Your task to perform on an android device: open device folders in google photos Image 0: 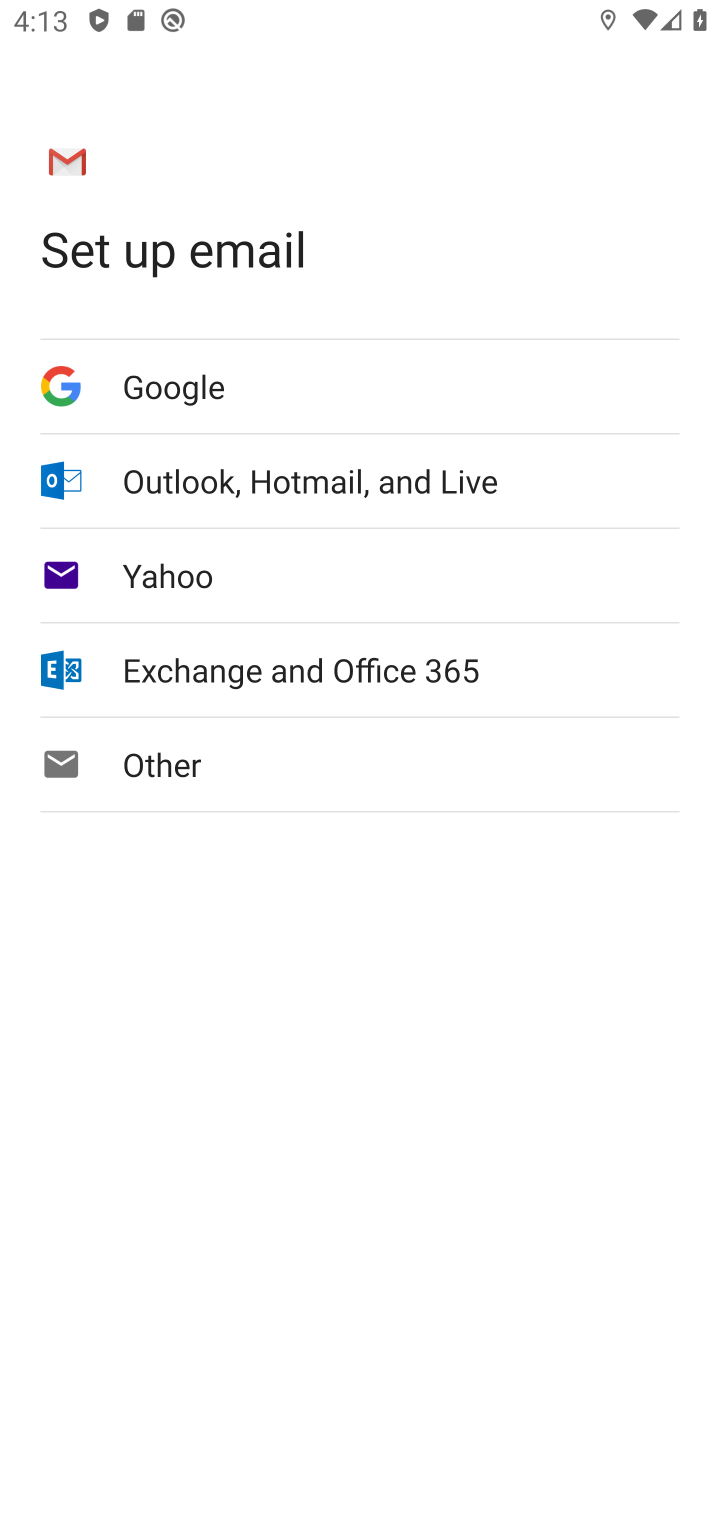
Step 0: press back button
Your task to perform on an android device: open device folders in google photos Image 1: 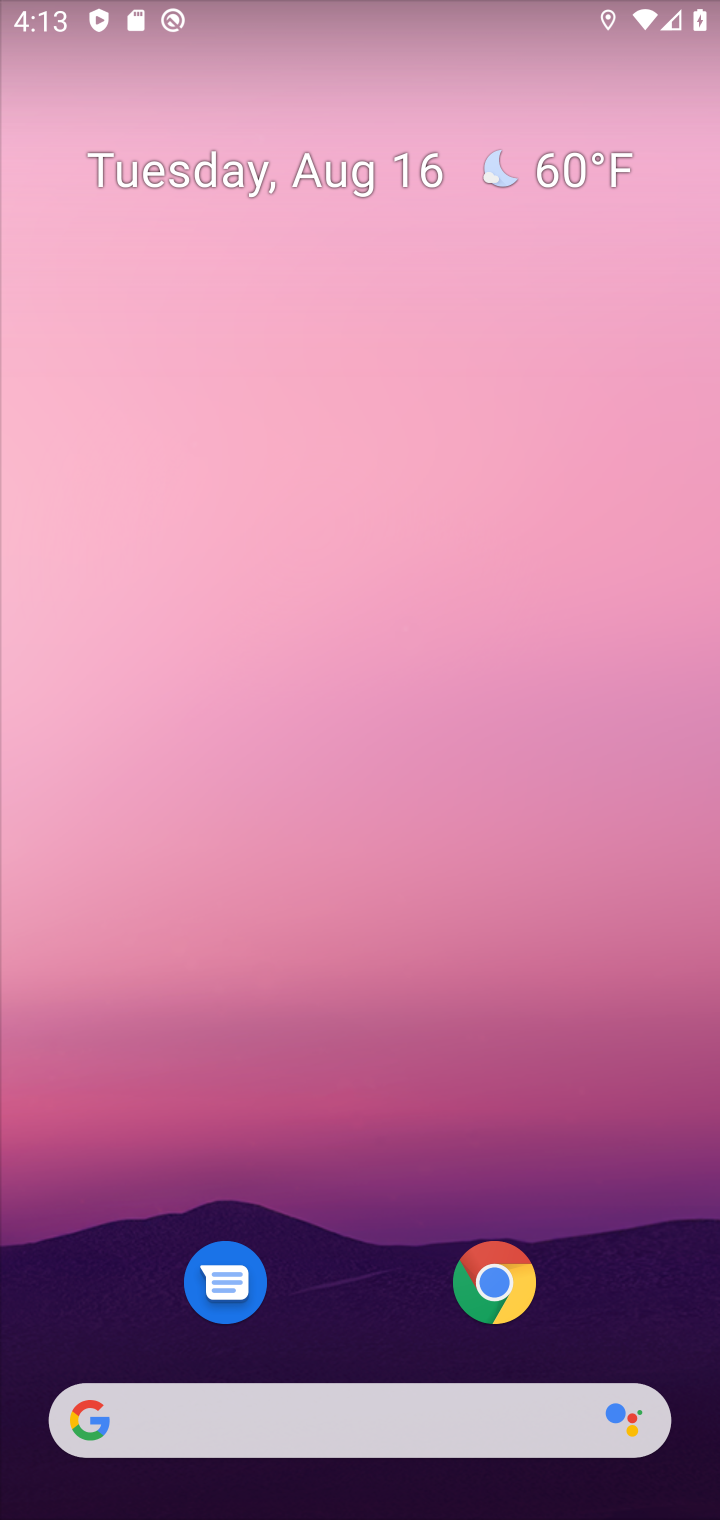
Step 1: drag from (376, 1104) to (507, 2)
Your task to perform on an android device: open device folders in google photos Image 2: 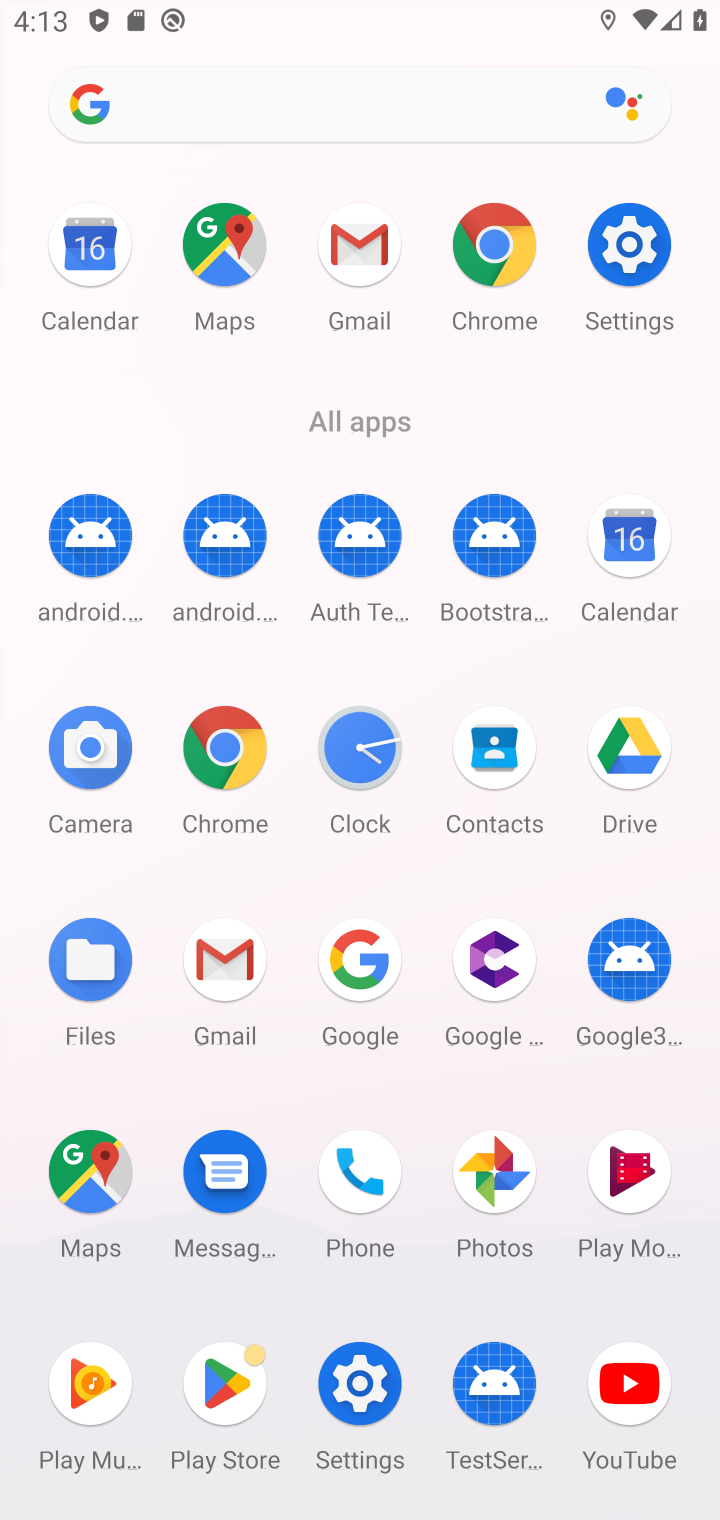
Step 2: click (472, 1190)
Your task to perform on an android device: open device folders in google photos Image 3: 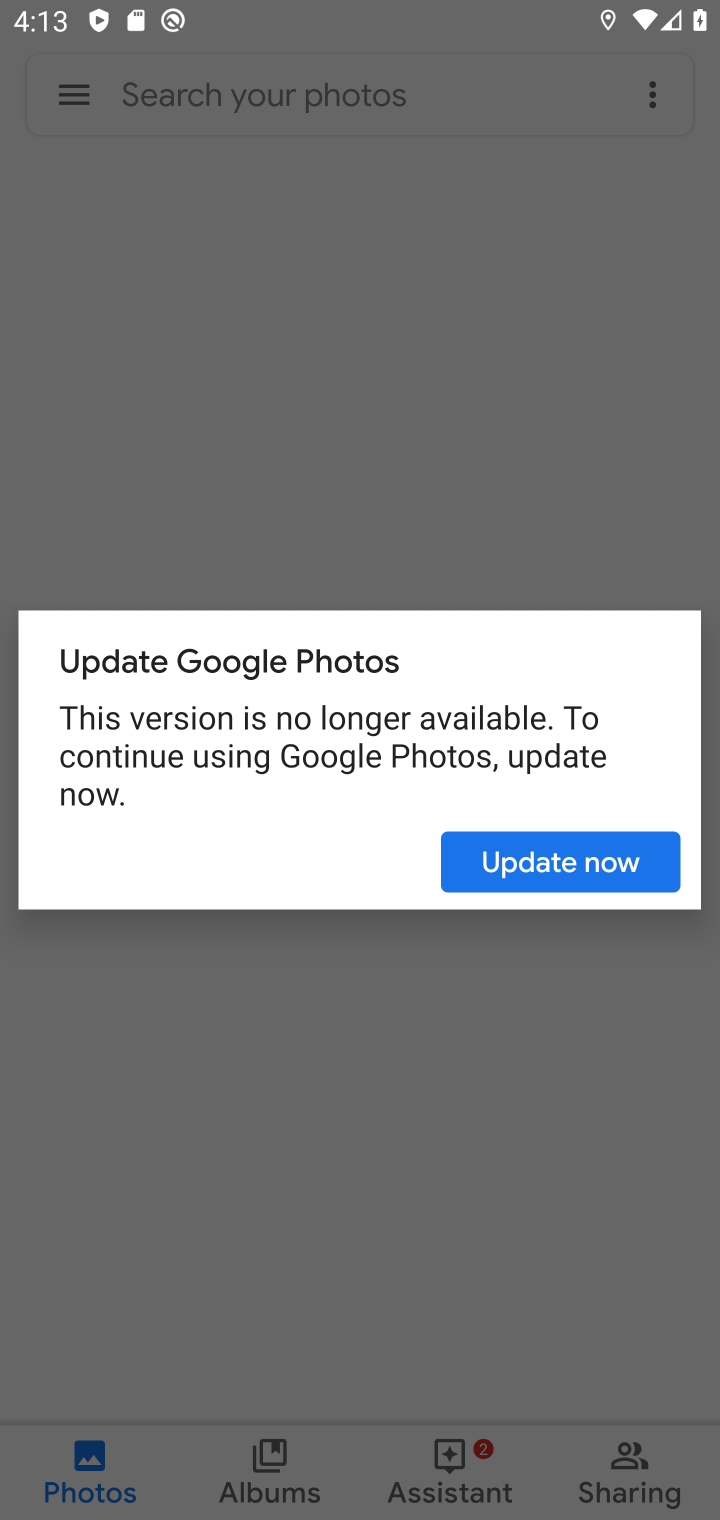
Step 3: click (535, 870)
Your task to perform on an android device: open device folders in google photos Image 4: 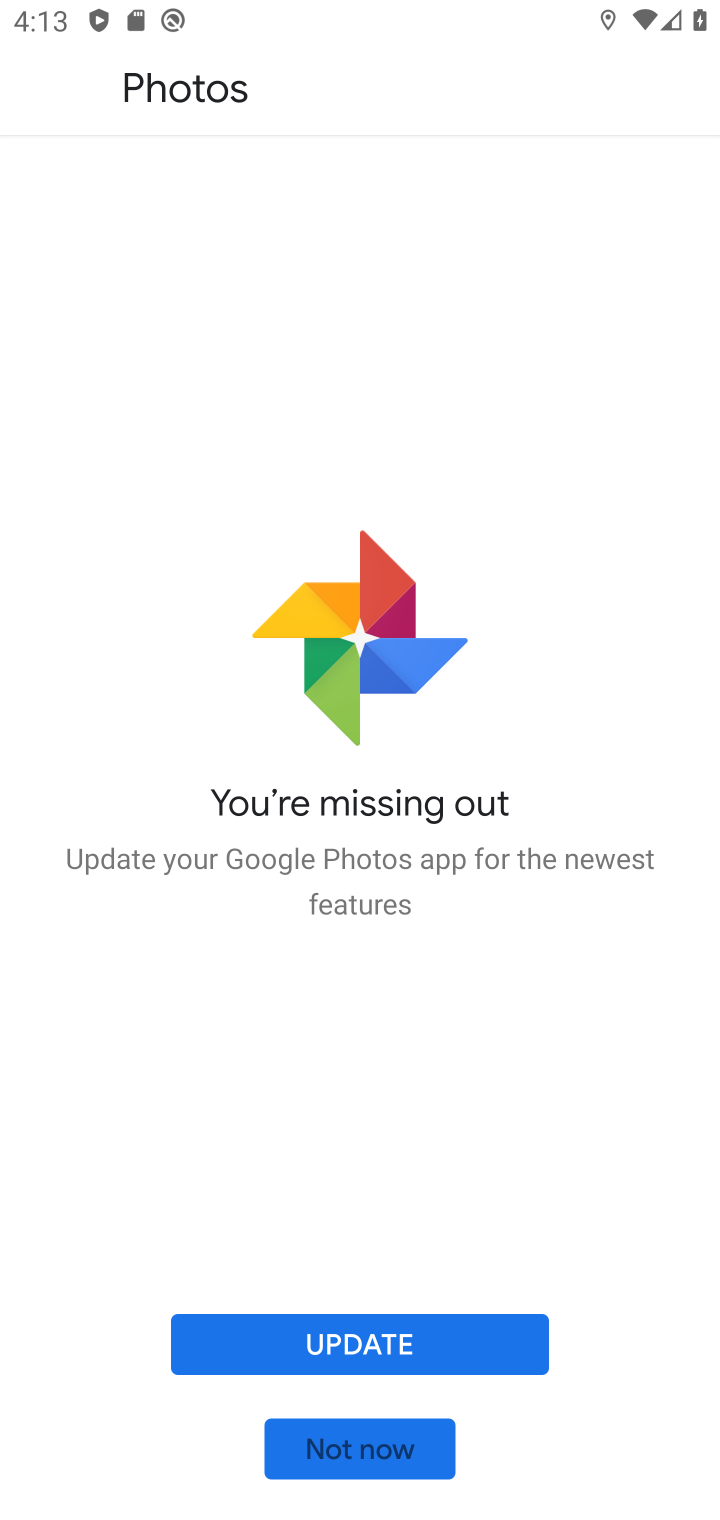
Step 4: click (308, 1459)
Your task to perform on an android device: open device folders in google photos Image 5: 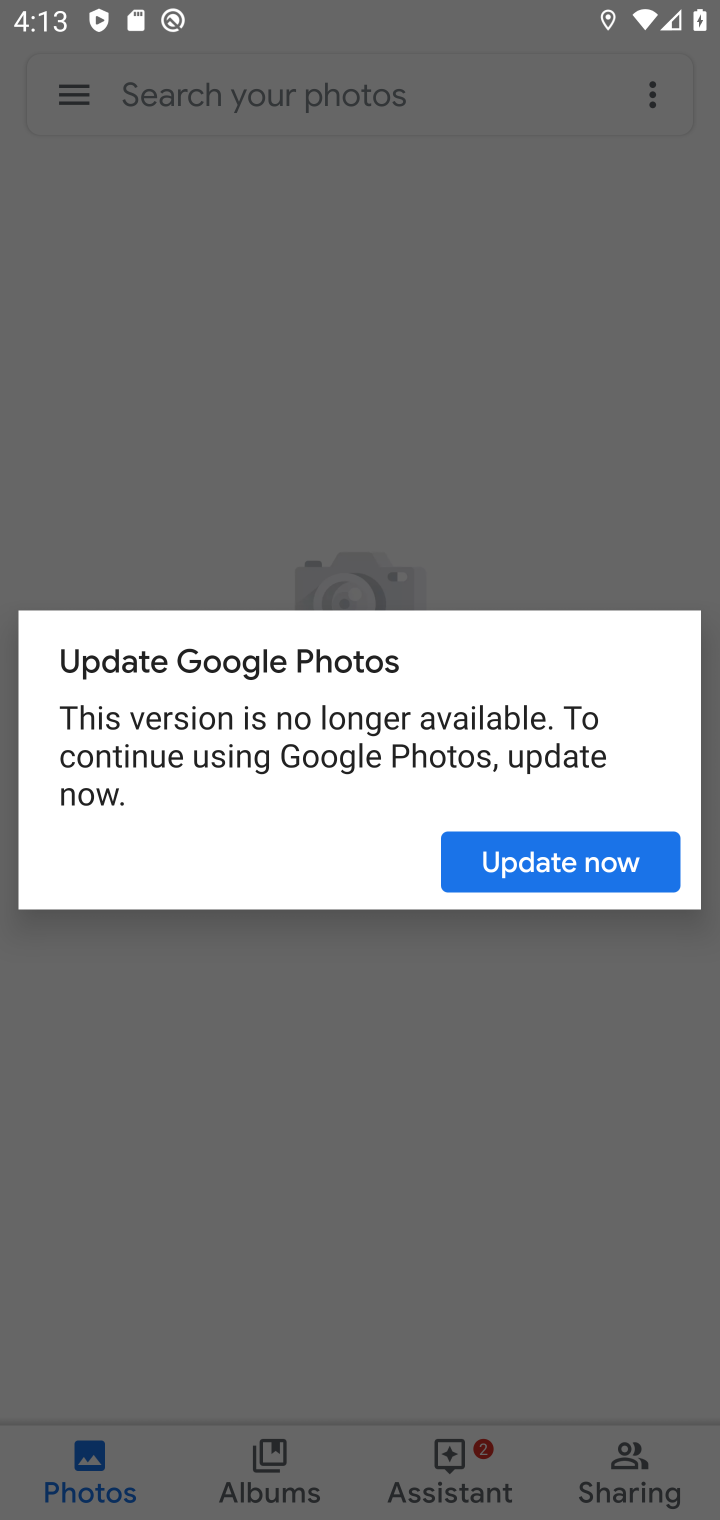
Step 5: click (496, 852)
Your task to perform on an android device: open device folders in google photos Image 6: 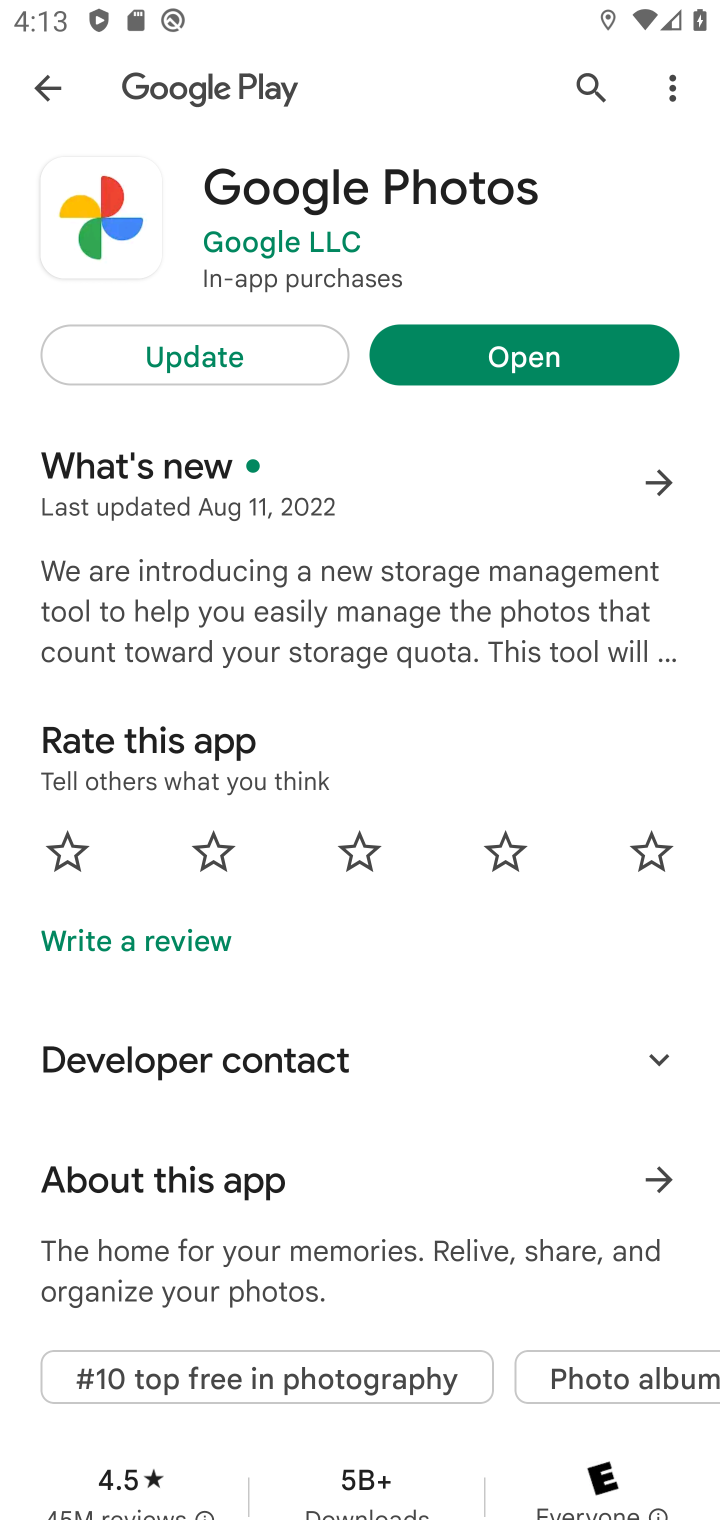
Step 6: click (516, 345)
Your task to perform on an android device: open device folders in google photos Image 7: 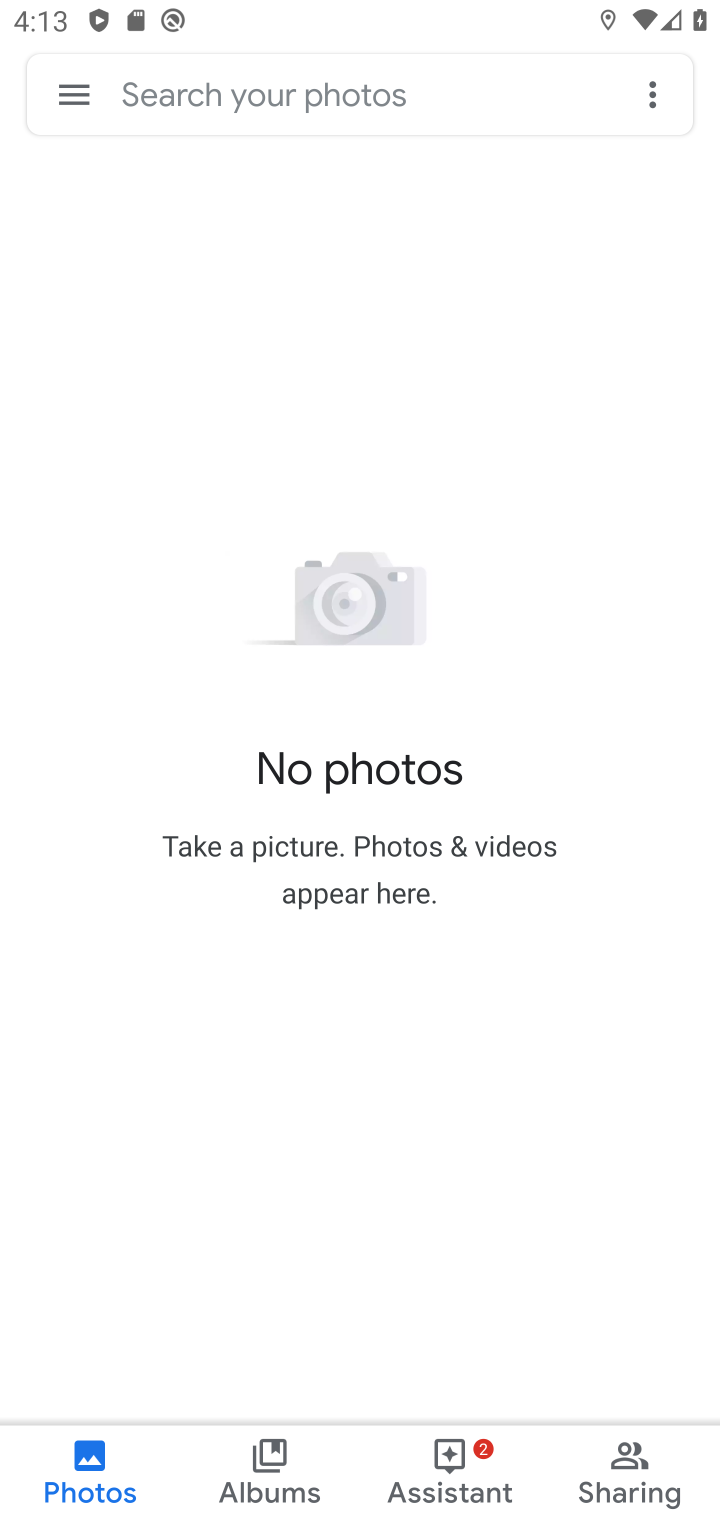
Step 7: click (81, 104)
Your task to perform on an android device: open device folders in google photos Image 8: 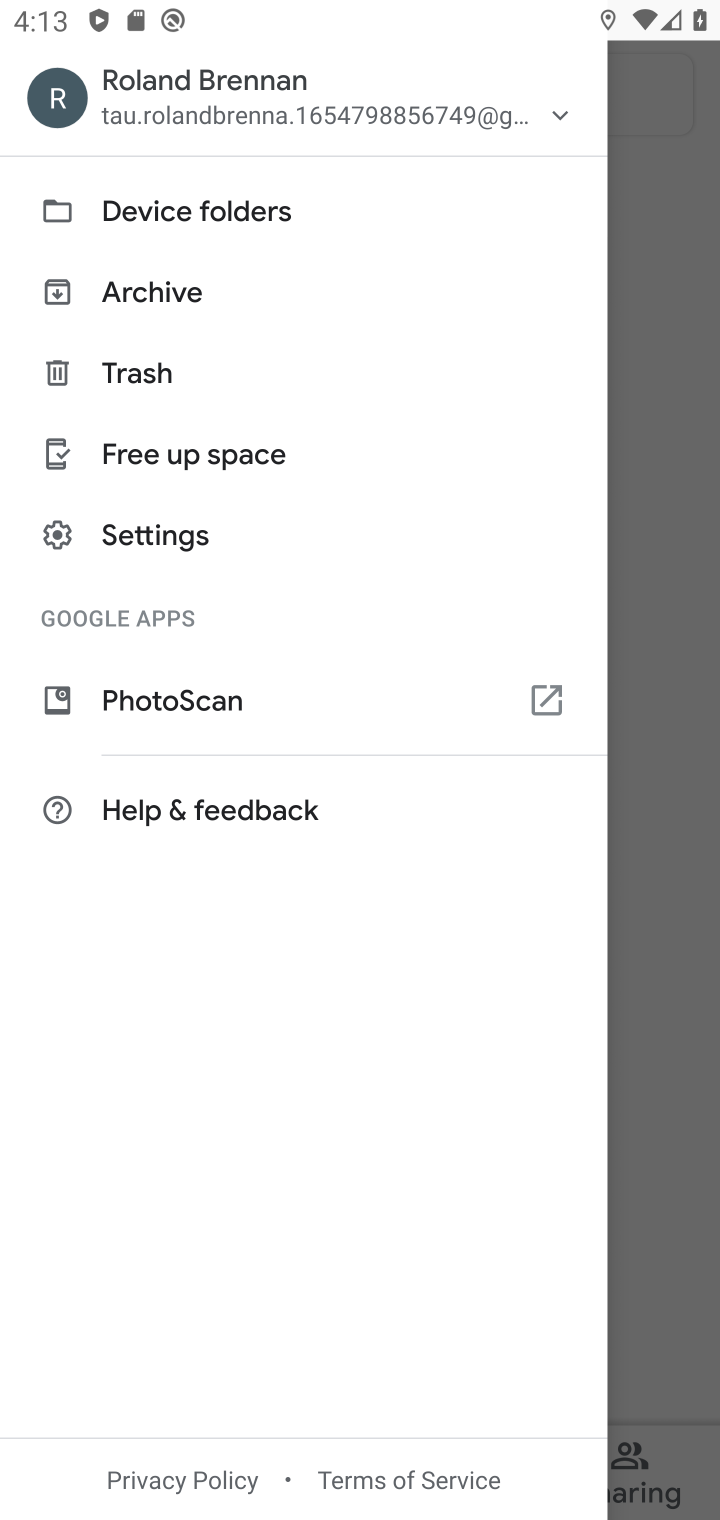
Step 8: click (208, 200)
Your task to perform on an android device: open device folders in google photos Image 9: 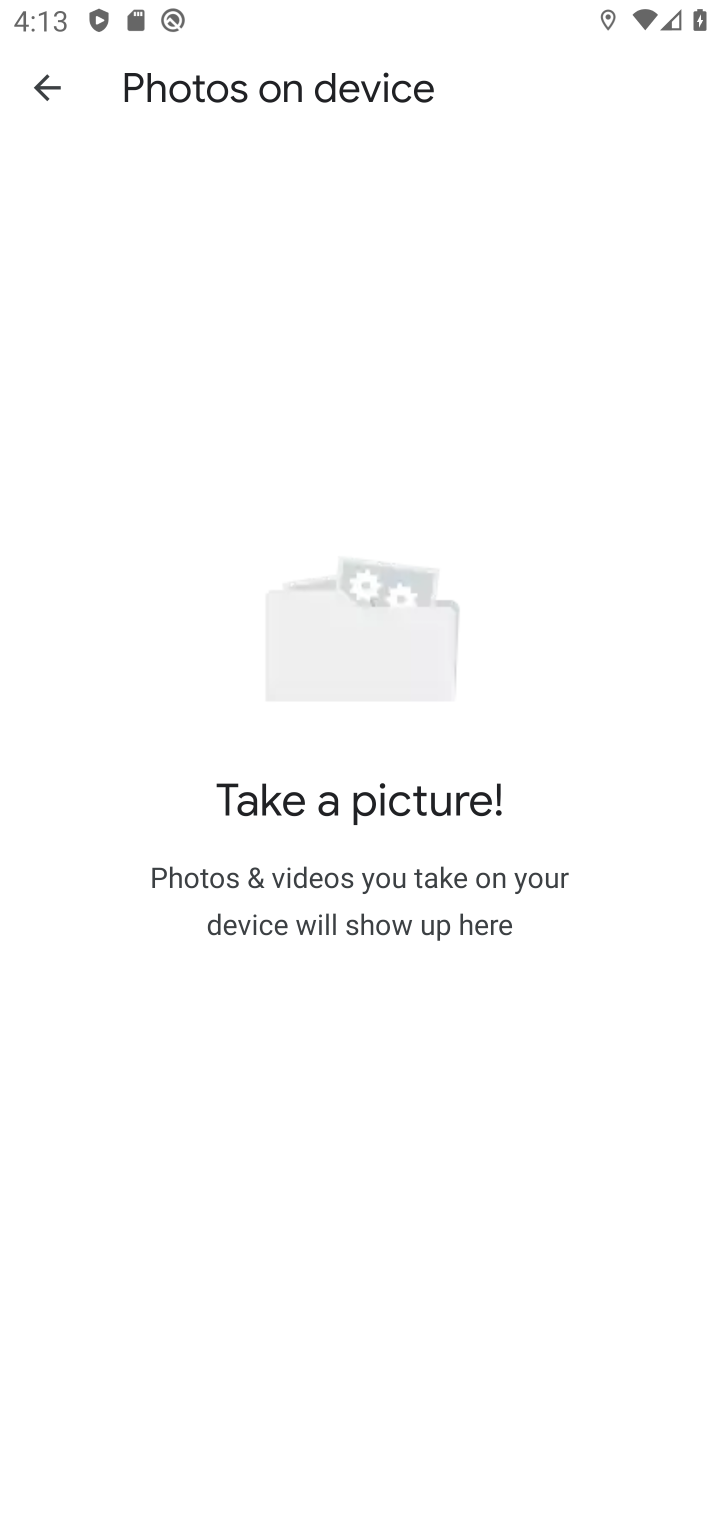
Step 9: task complete